Your task to perform on an android device: open chrome and create a bookmark for the current page Image 0: 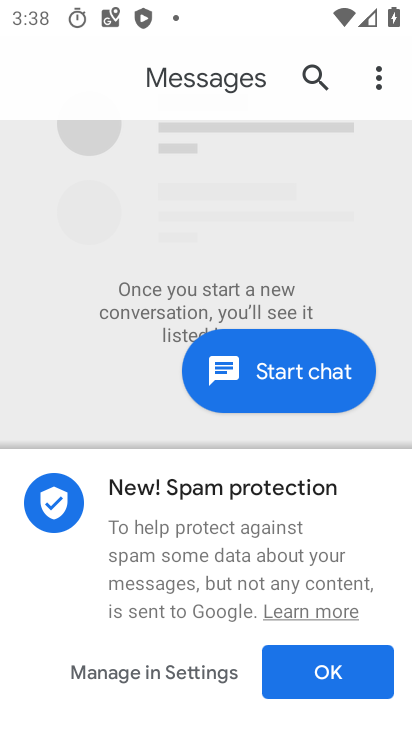
Step 0: press home button
Your task to perform on an android device: open chrome and create a bookmark for the current page Image 1: 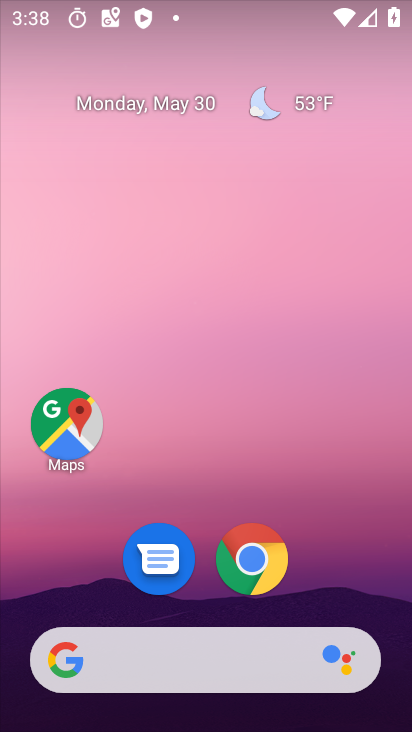
Step 1: click (254, 556)
Your task to perform on an android device: open chrome and create a bookmark for the current page Image 2: 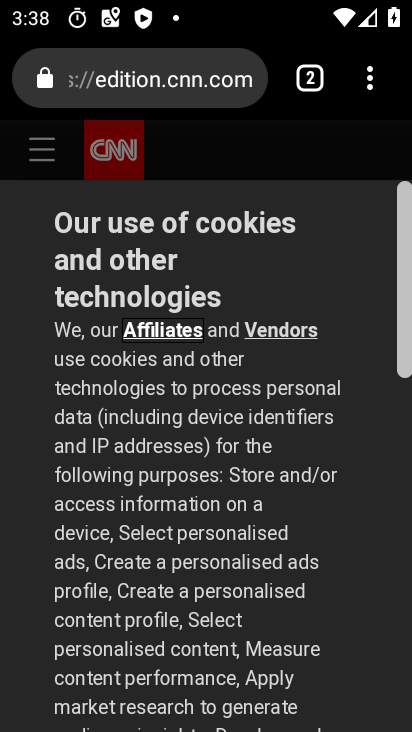
Step 2: click (371, 90)
Your task to perform on an android device: open chrome and create a bookmark for the current page Image 3: 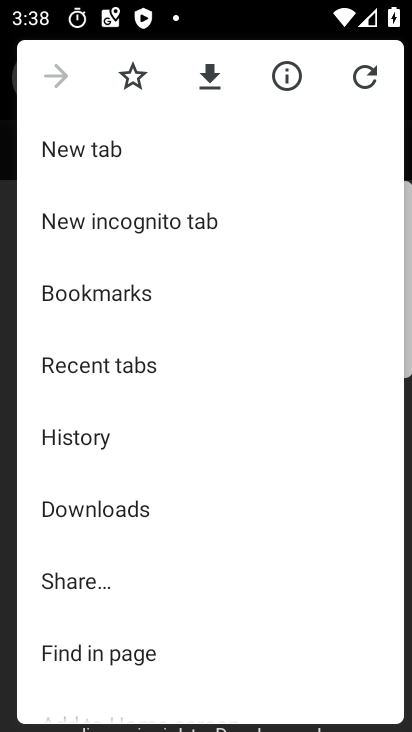
Step 3: click (130, 71)
Your task to perform on an android device: open chrome and create a bookmark for the current page Image 4: 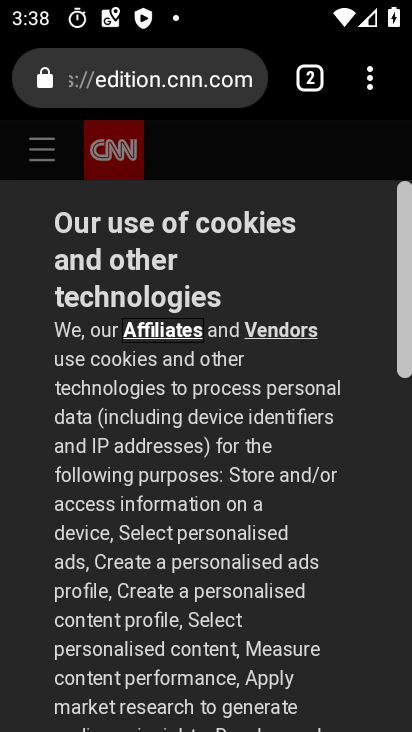
Step 4: task complete